Your task to perform on an android device: Go to wifi settings Image 0: 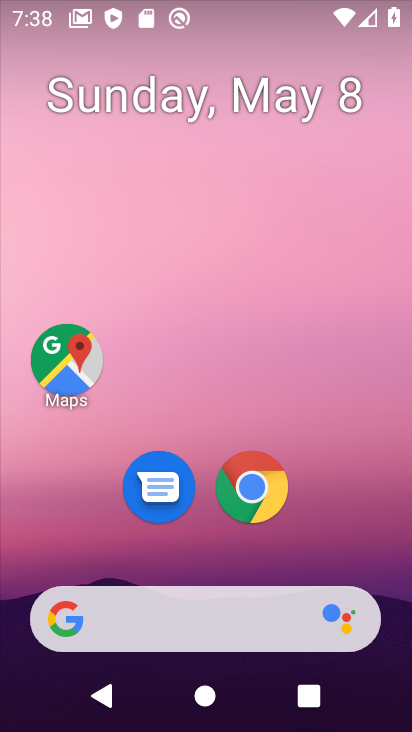
Step 0: drag from (319, 547) to (327, 187)
Your task to perform on an android device: Go to wifi settings Image 1: 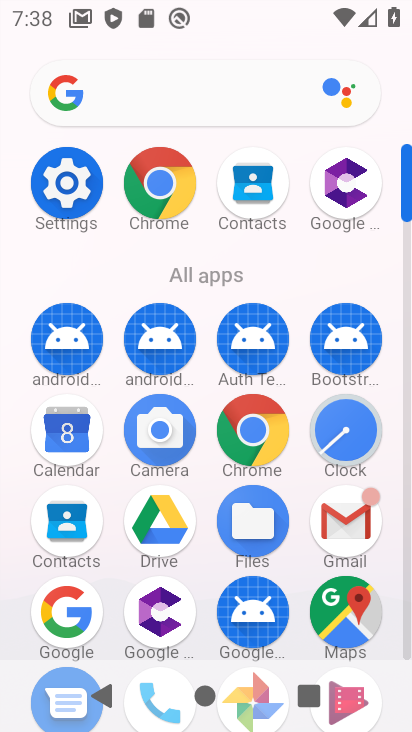
Step 1: click (50, 213)
Your task to perform on an android device: Go to wifi settings Image 2: 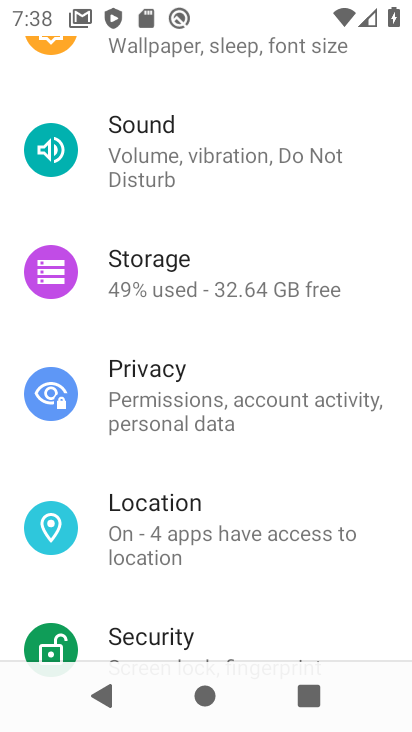
Step 2: drag from (166, 160) to (156, 725)
Your task to perform on an android device: Go to wifi settings Image 3: 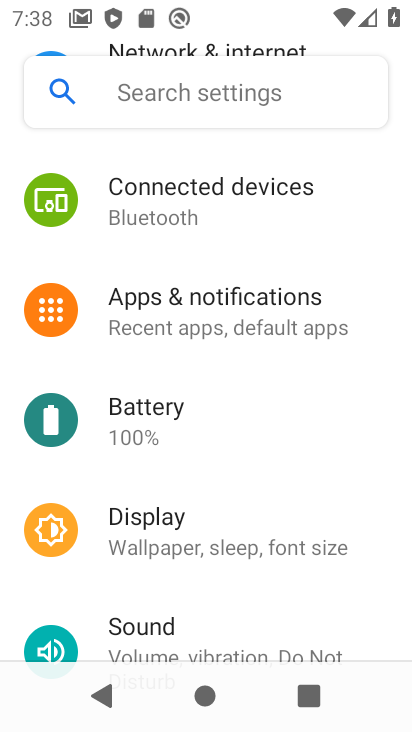
Step 3: drag from (222, 288) to (227, 534)
Your task to perform on an android device: Go to wifi settings Image 4: 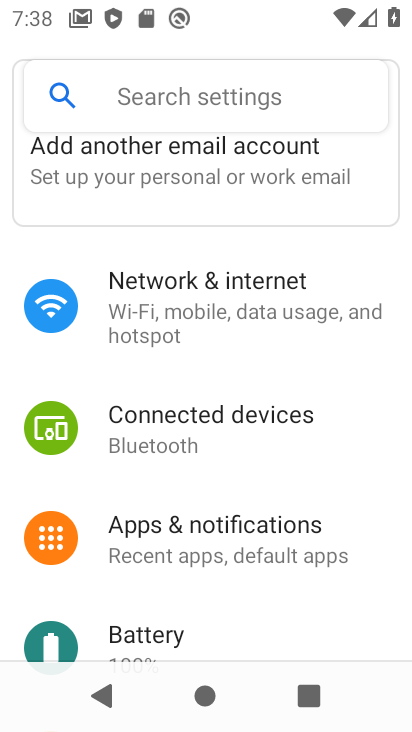
Step 4: click (227, 257)
Your task to perform on an android device: Go to wifi settings Image 5: 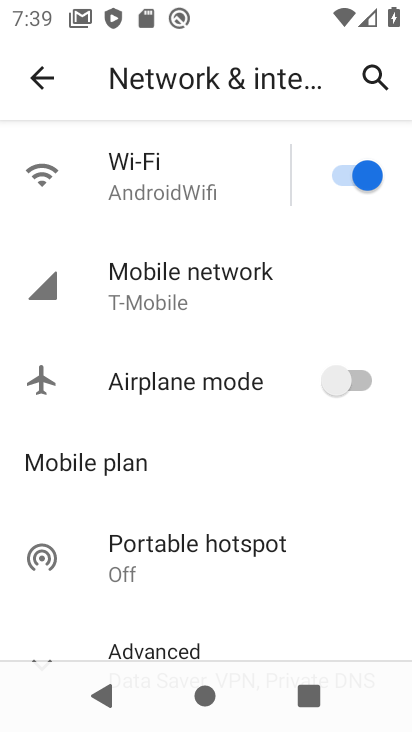
Step 5: click (157, 209)
Your task to perform on an android device: Go to wifi settings Image 6: 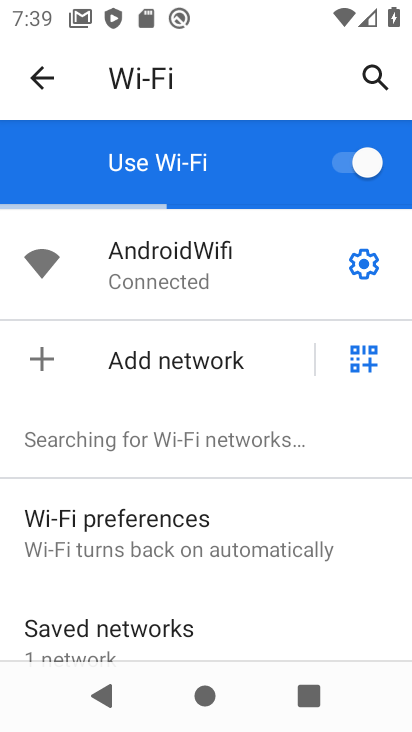
Step 6: task complete